Your task to perform on an android device: Open privacy settings Image 0: 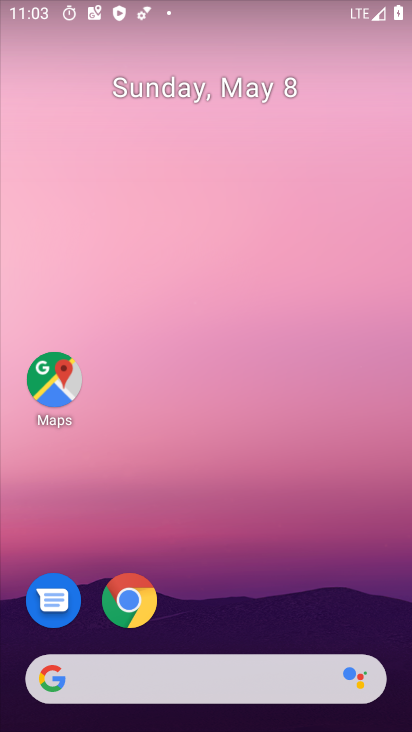
Step 0: drag from (39, 450) to (197, 166)
Your task to perform on an android device: Open privacy settings Image 1: 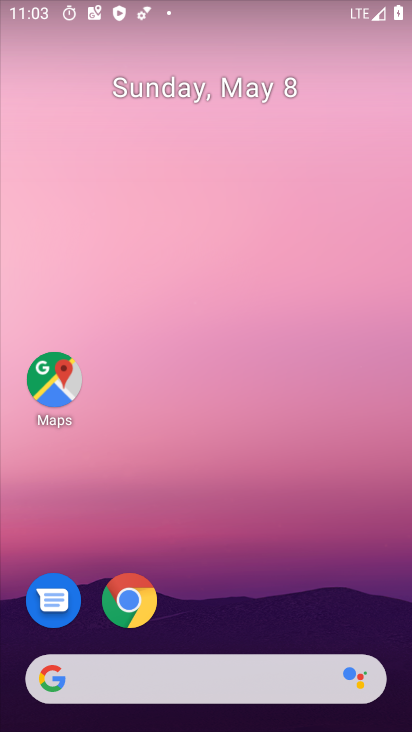
Step 1: drag from (26, 640) to (360, 143)
Your task to perform on an android device: Open privacy settings Image 2: 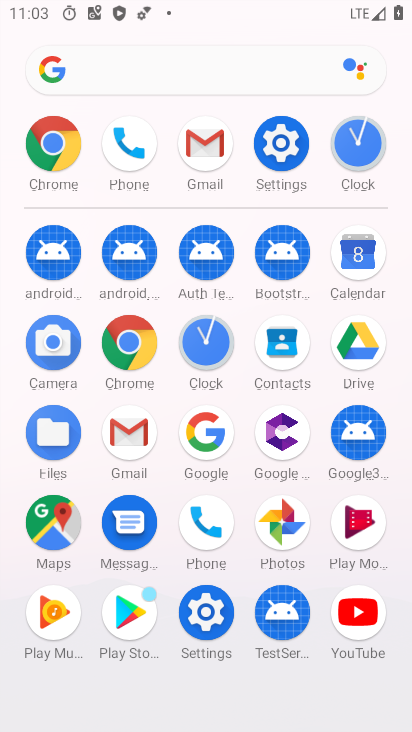
Step 2: click (290, 154)
Your task to perform on an android device: Open privacy settings Image 3: 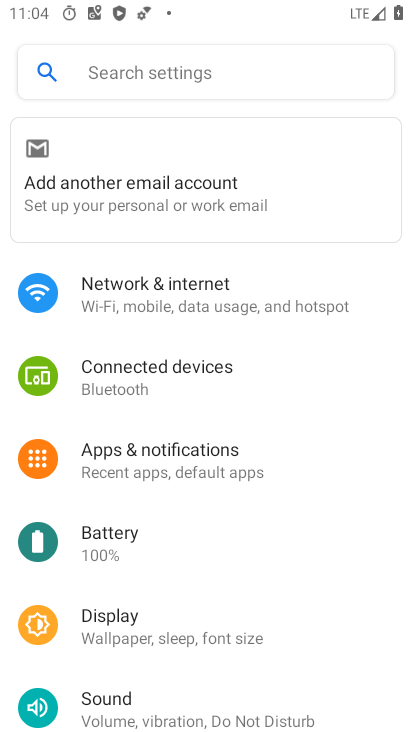
Step 3: drag from (184, 648) to (281, 175)
Your task to perform on an android device: Open privacy settings Image 4: 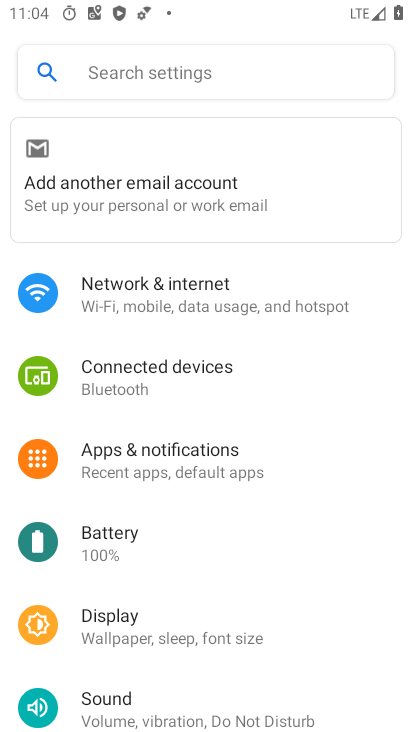
Step 4: drag from (85, 664) to (280, 176)
Your task to perform on an android device: Open privacy settings Image 5: 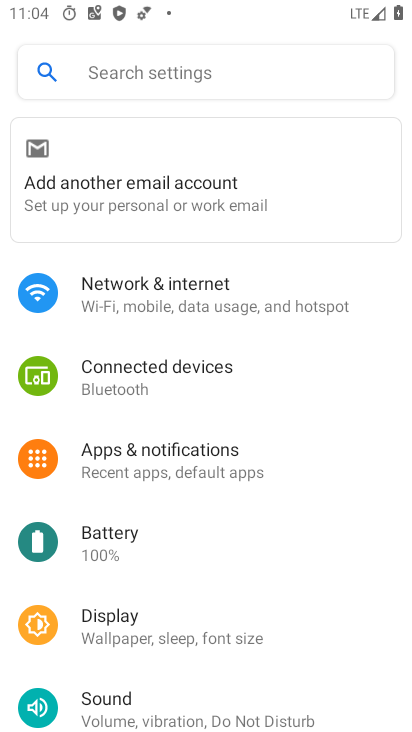
Step 5: drag from (117, 704) to (290, 263)
Your task to perform on an android device: Open privacy settings Image 6: 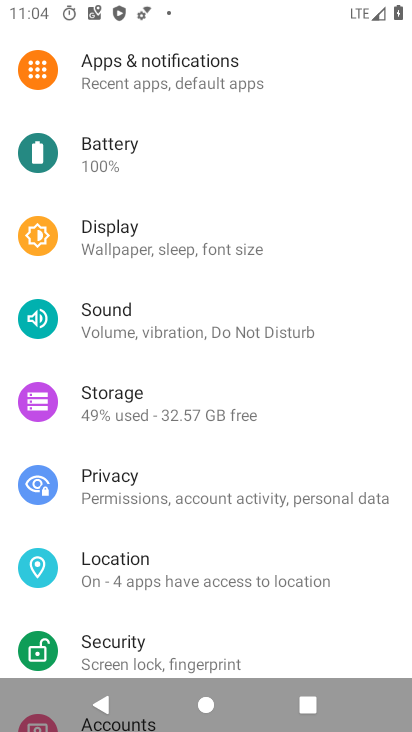
Step 6: drag from (148, 586) to (287, 135)
Your task to perform on an android device: Open privacy settings Image 7: 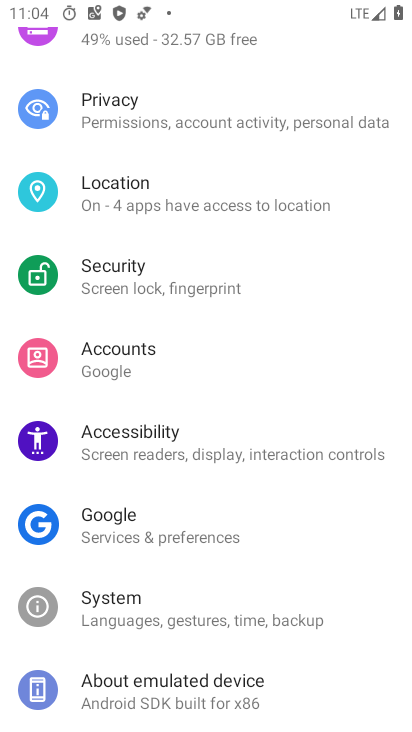
Step 7: drag from (183, 565) to (281, 238)
Your task to perform on an android device: Open privacy settings Image 8: 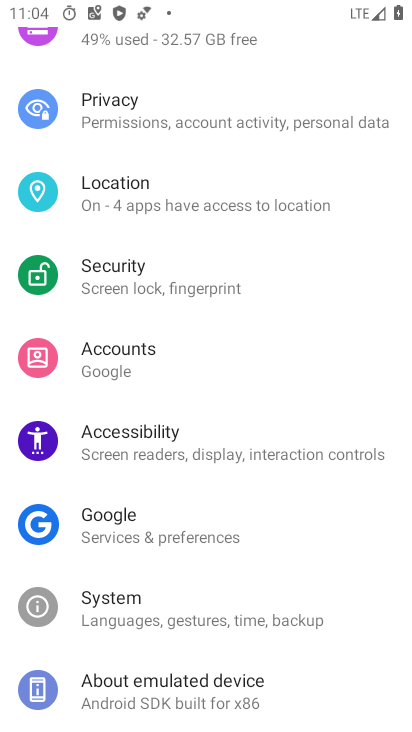
Step 8: click (197, 106)
Your task to perform on an android device: Open privacy settings Image 9: 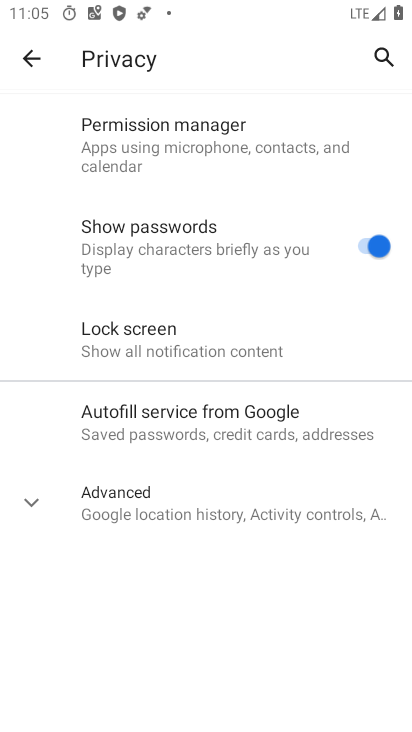
Step 9: task complete